Your task to perform on an android device: toggle translation in the chrome app Image 0: 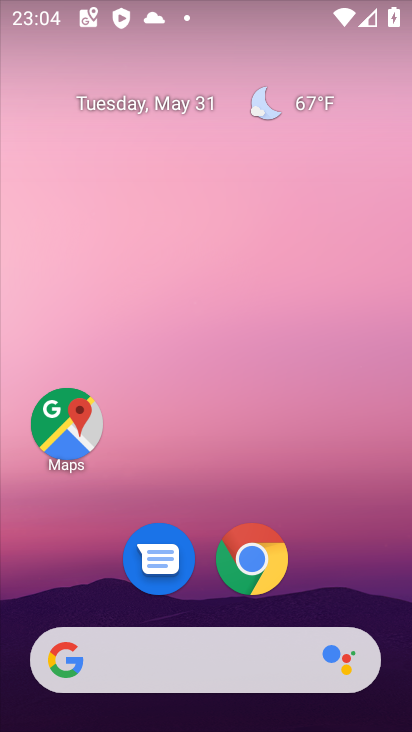
Step 0: click (252, 560)
Your task to perform on an android device: toggle translation in the chrome app Image 1: 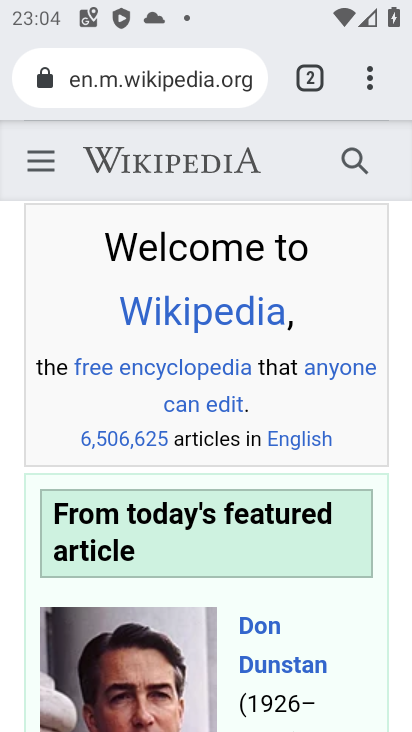
Step 1: click (365, 78)
Your task to perform on an android device: toggle translation in the chrome app Image 2: 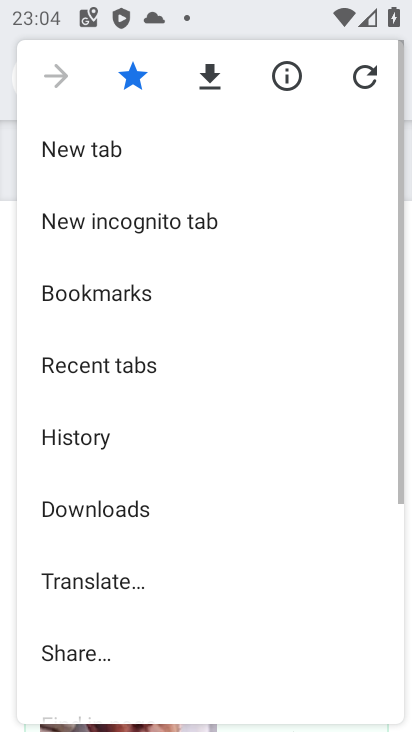
Step 2: drag from (183, 580) to (213, 117)
Your task to perform on an android device: toggle translation in the chrome app Image 3: 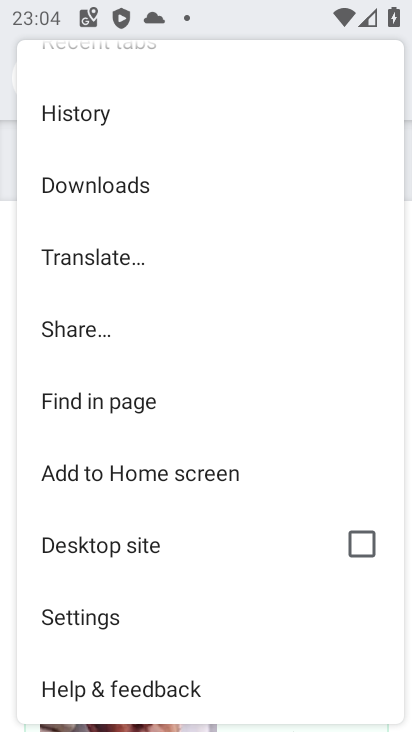
Step 3: click (103, 617)
Your task to perform on an android device: toggle translation in the chrome app Image 4: 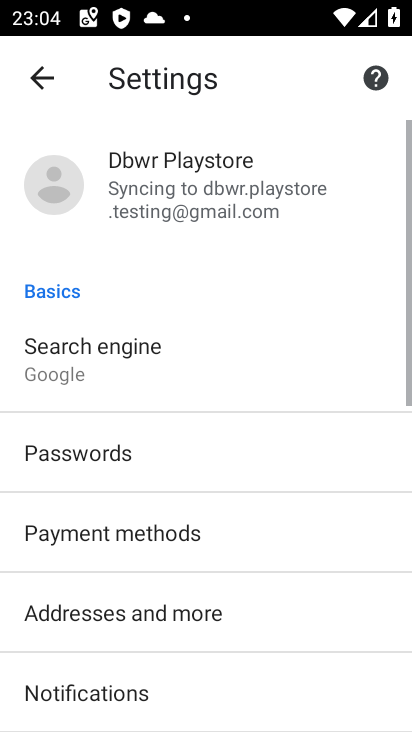
Step 4: drag from (249, 612) to (271, 114)
Your task to perform on an android device: toggle translation in the chrome app Image 5: 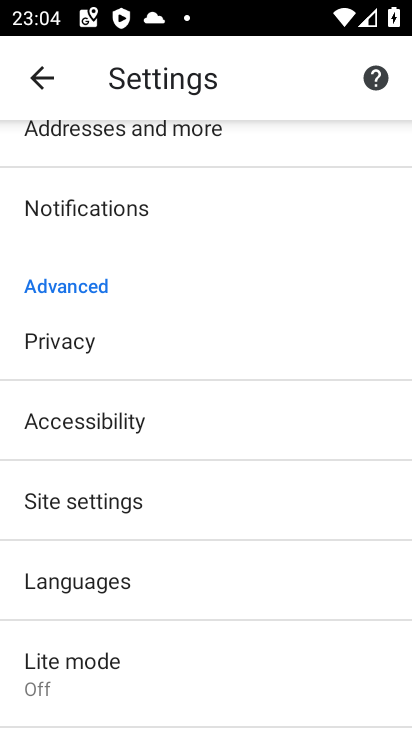
Step 5: click (125, 577)
Your task to perform on an android device: toggle translation in the chrome app Image 6: 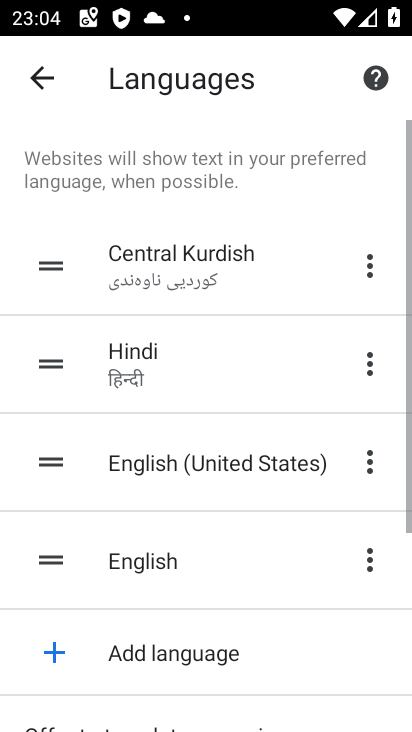
Step 6: drag from (212, 707) to (258, 188)
Your task to perform on an android device: toggle translation in the chrome app Image 7: 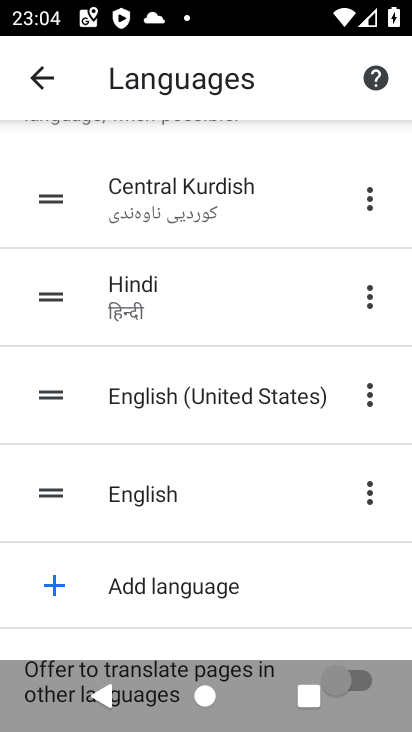
Step 7: click (280, 641)
Your task to perform on an android device: toggle translation in the chrome app Image 8: 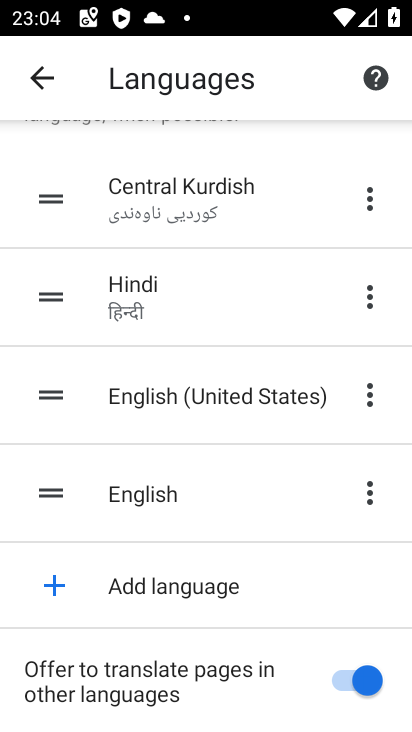
Step 8: task complete